Your task to perform on an android device: Search for usb-c to usb-b on bestbuy.com, select the first entry, and add it to the cart. Image 0: 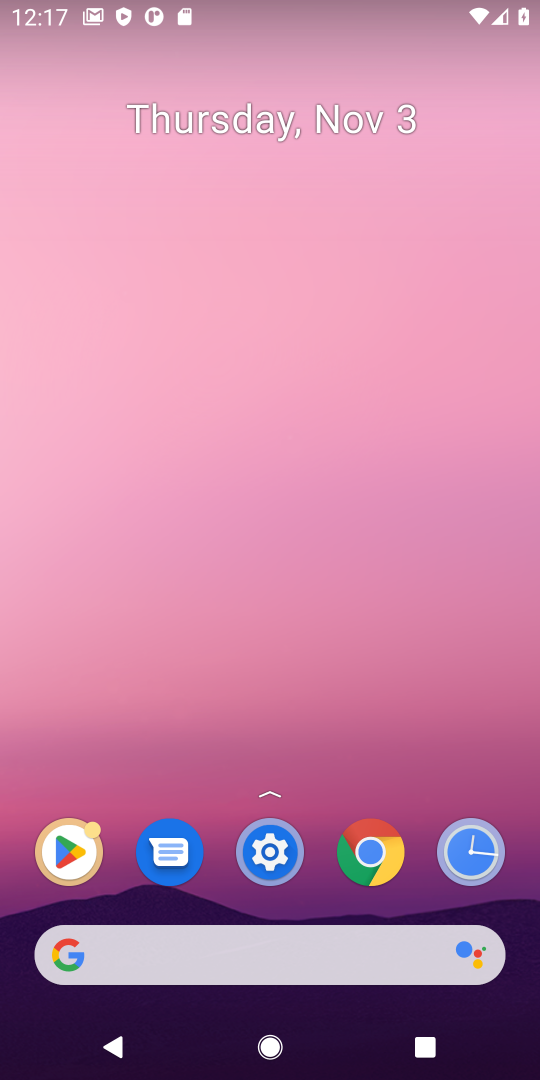
Step 0: click (373, 856)
Your task to perform on an android device: Search for usb-c to usb-b on bestbuy.com, select the first entry, and add it to the cart. Image 1: 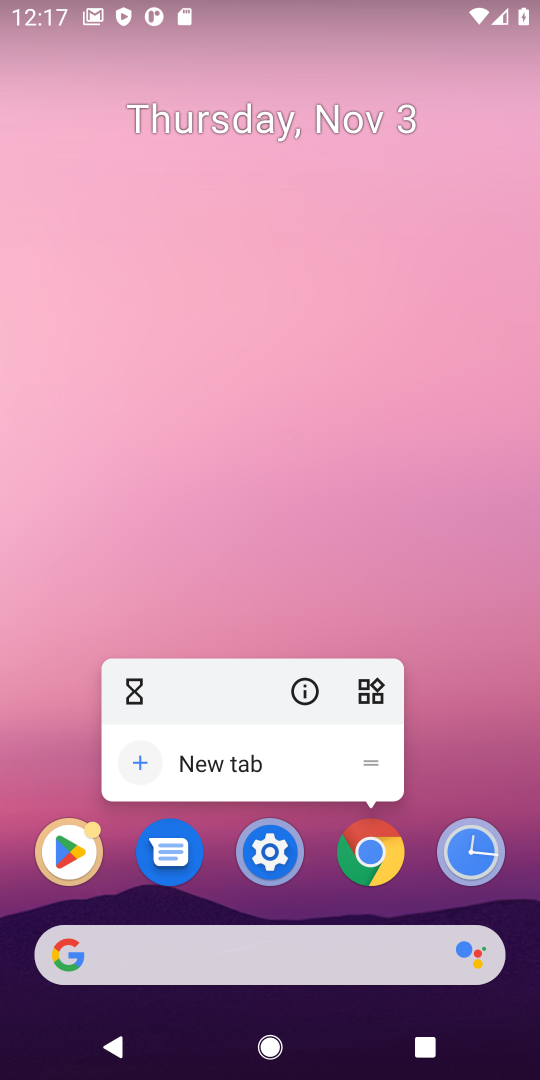
Step 1: click (381, 857)
Your task to perform on an android device: Search for usb-c to usb-b on bestbuy.com, select the first entry, and add it to the cart. Image 2: 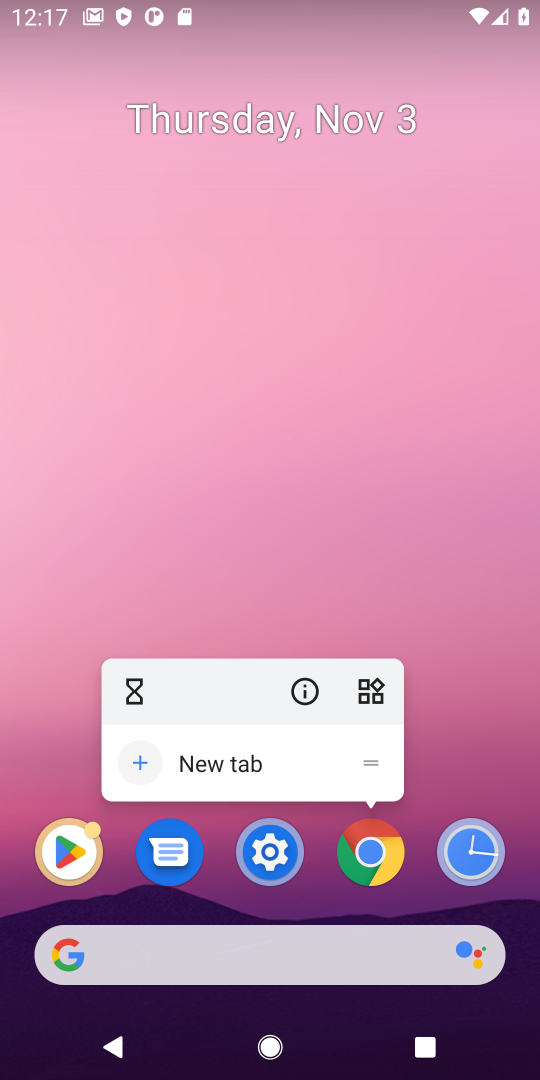
Step 2: click (373, 864)
Your task to perform on an android device: Search for usb-c to usb-b on bestbuy.com, select the first entry, and add it to the cart. Image 3: 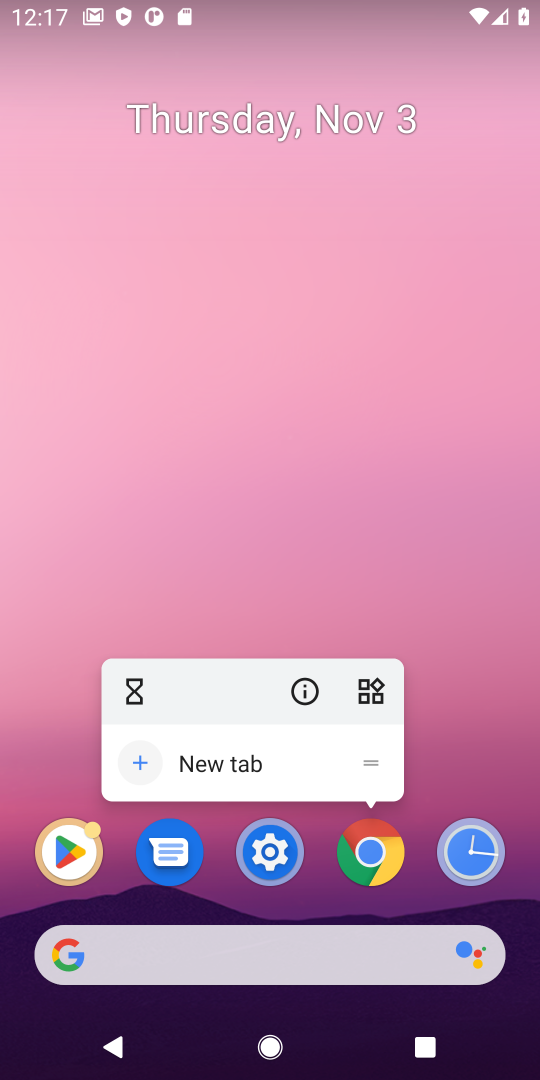
Step 3: click (373, 864)
Your task to perform on an android device: Search for usb-c to usb-b on bestbuy.com, select the first entry, and add it to the cart. Image 4: 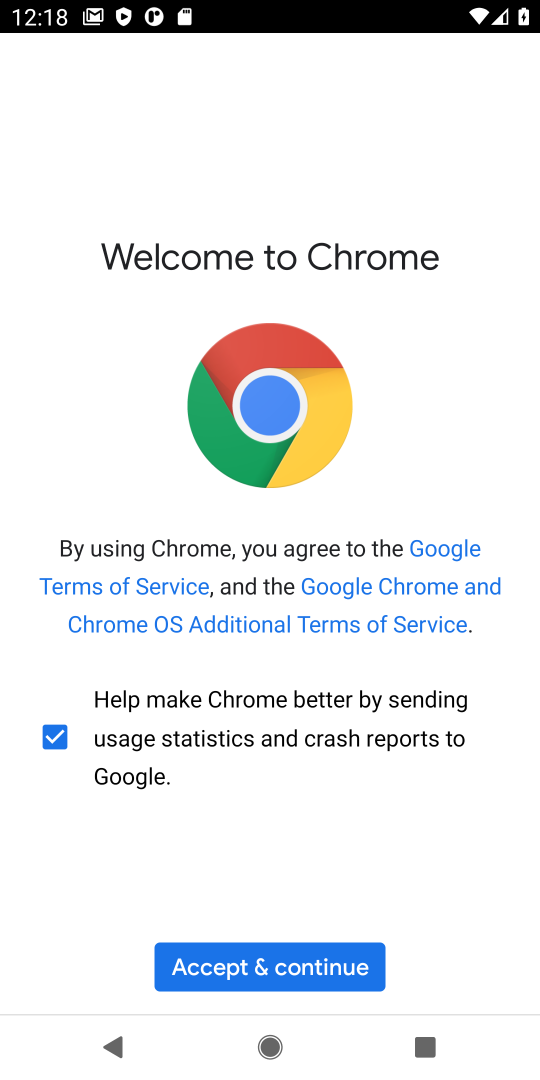
Step 4: click (317, 970)
Your task to perform on an android device: Search for usb-c to usb-b on bestbuy.com, select the first entry, and add it to the cart. Image 5: 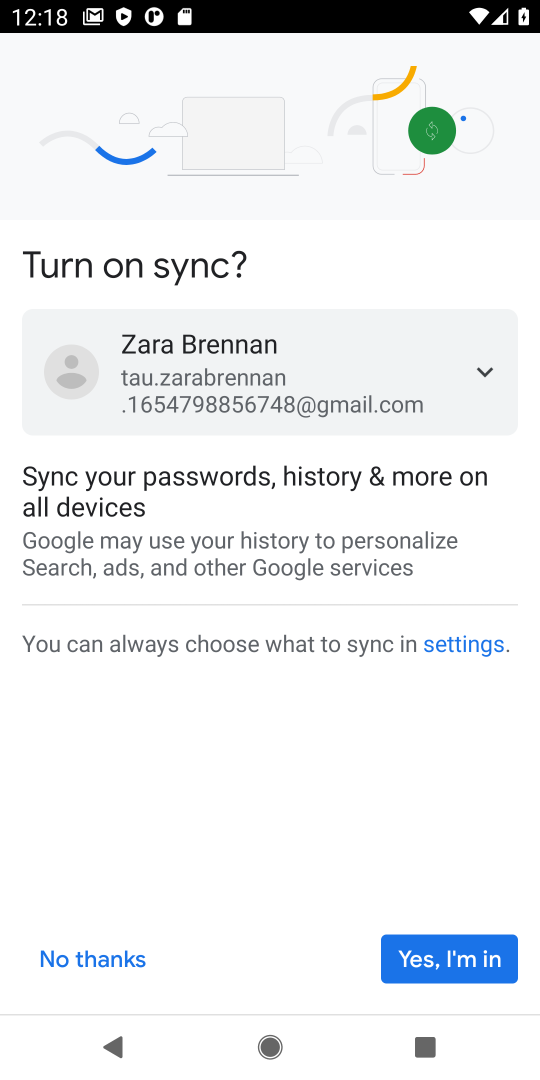
Step 5: click (412, 968)
Your task to perform on an android device: Search for usb-c to usb-b on bestbuy.com, select the first entry, and add it to the cart. Image 6: 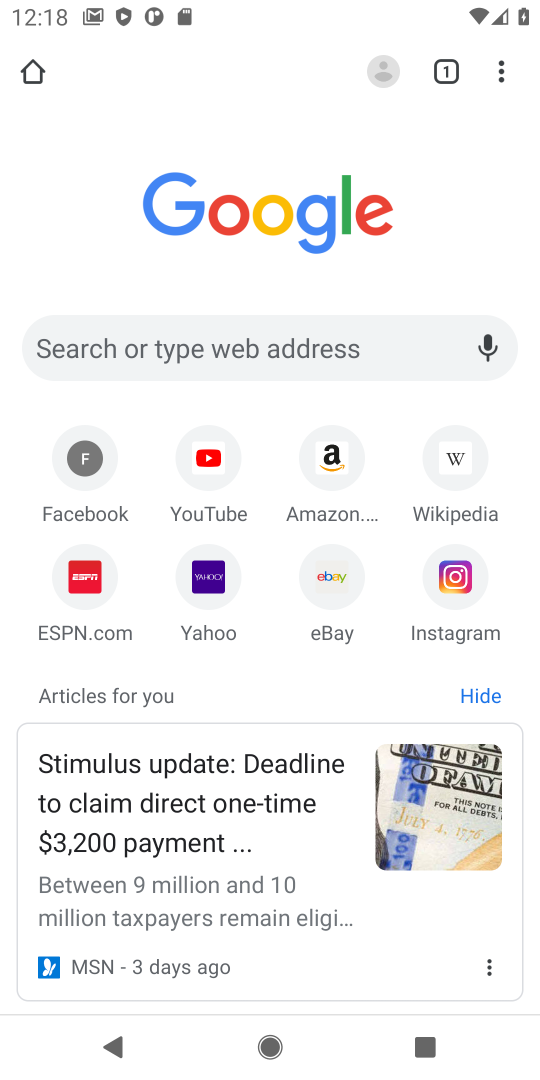
Step 6: click (185, 357)
Your task to perform on an android device: Search for usb-c to usb-b on bestbuy.com, select the first entry, and add it to the cart. Image 7: 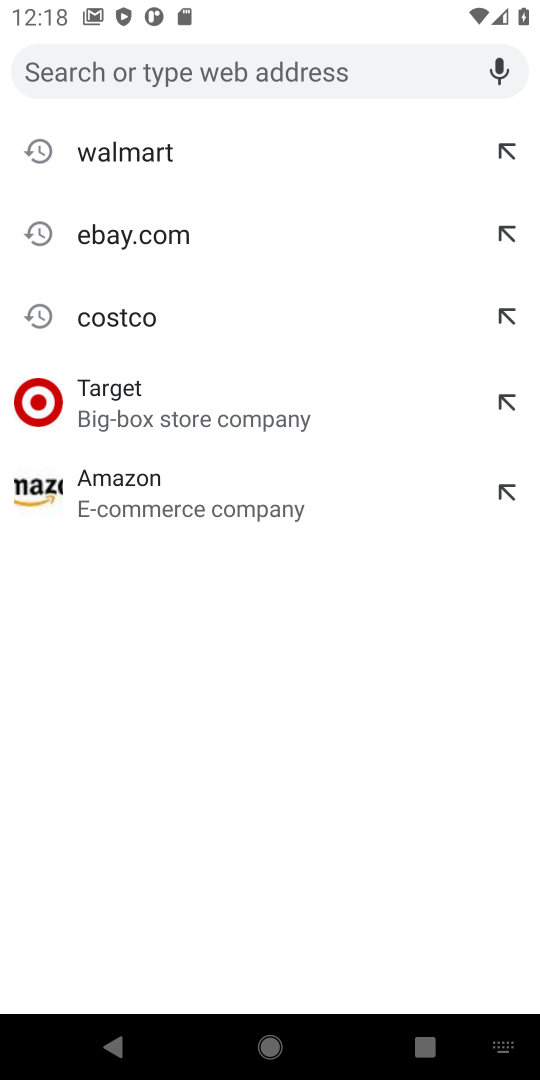
Step 7: type "bestbuy.com"
Your task to perform on an android device: Search for usb-c to usb-b on bestbuy.com, select the first entry, and add it to the cart. Image 8: 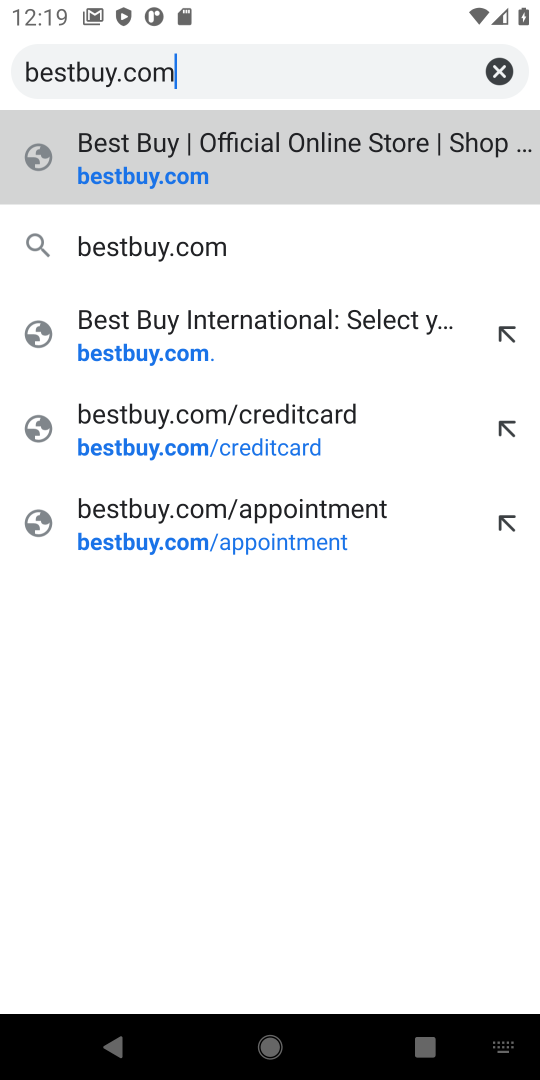
Step 8: click (148, 184)
Your task to perform on an android device: Search for usb-c to usb-b on bestbuy.com, select the first entry, and add it to the cart. Image 9: 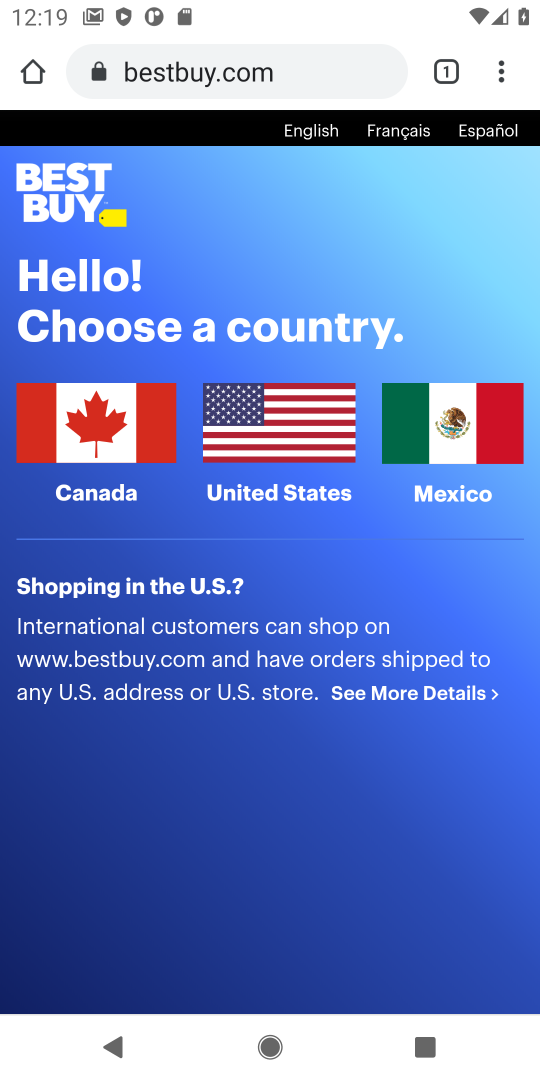
Step 9: click (275, 420)
Your task to perform on an android device: Search for usb-c to usb-b on bestbuy.com, select the first entry, and add it to the cart. Image 10: 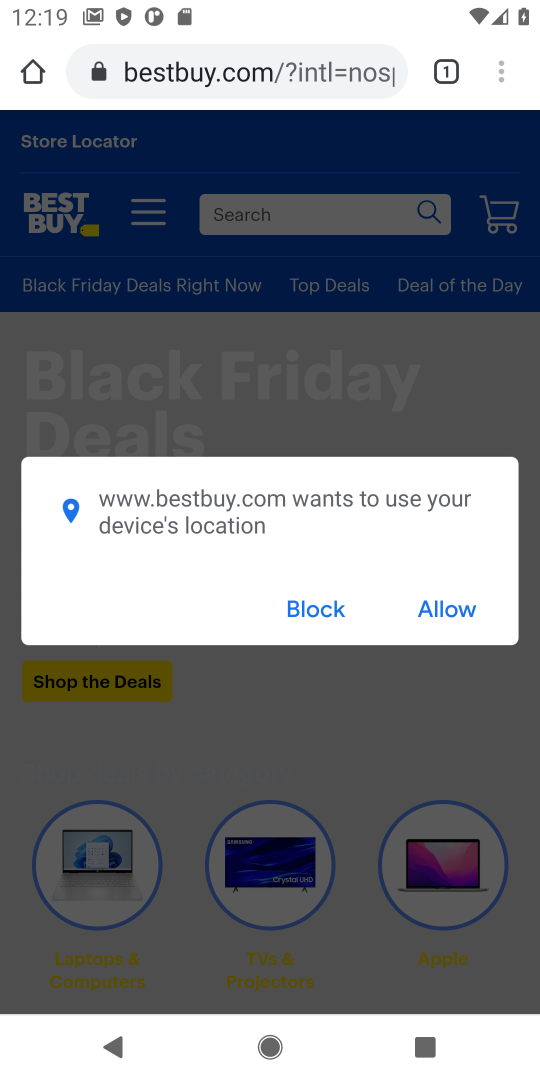
Step 10: click (300, 615)
Your task to perform on an android device: Search for usb-c to usb-b on bestbuy.com, select the first entry, and add it to the cart. Image 11: 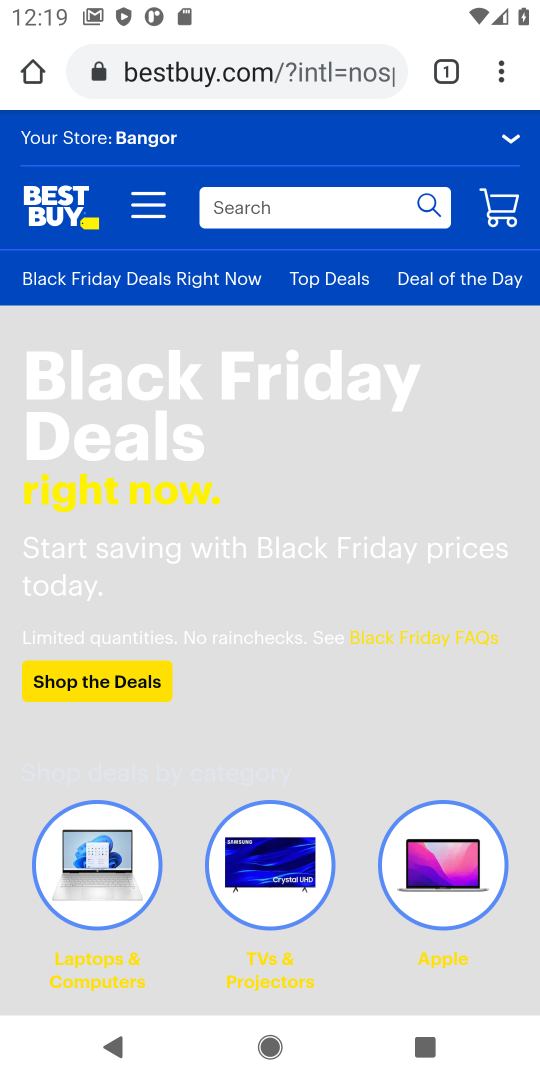
Step 11: click (250, 213)
Your task to perform on an android device: Search for usb-c to usb-b on bestbuy.com, select the first entry, and add it to the cart. Image 12: 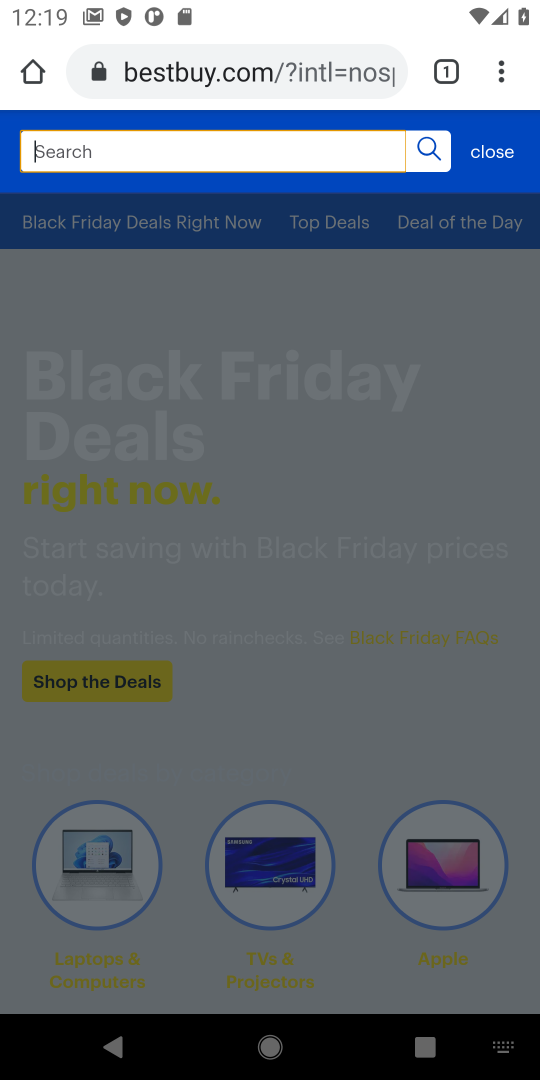
Step 12: type "usb-c to usb-b"
Your task to perform on an android device: Search for usb-c to usb-b on bestbuy.com, select the first entry, and add it to the cart. Image 13: 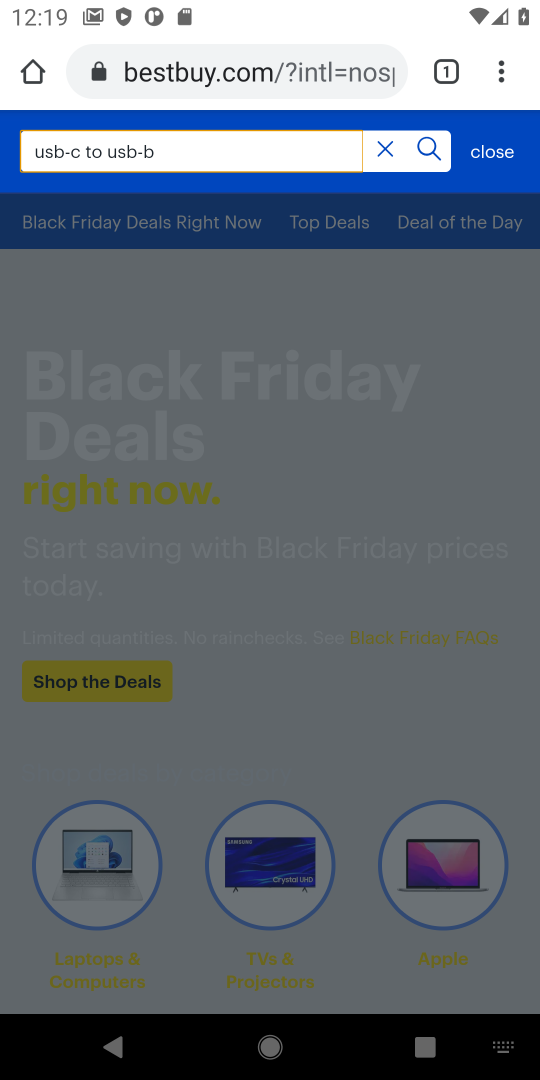
Step 13: click (425, 155)
Your task to perform on an android device: Search for usb-c to usb-b on bestbuy.com, select the first entry, and add it to the cart. Image 14: 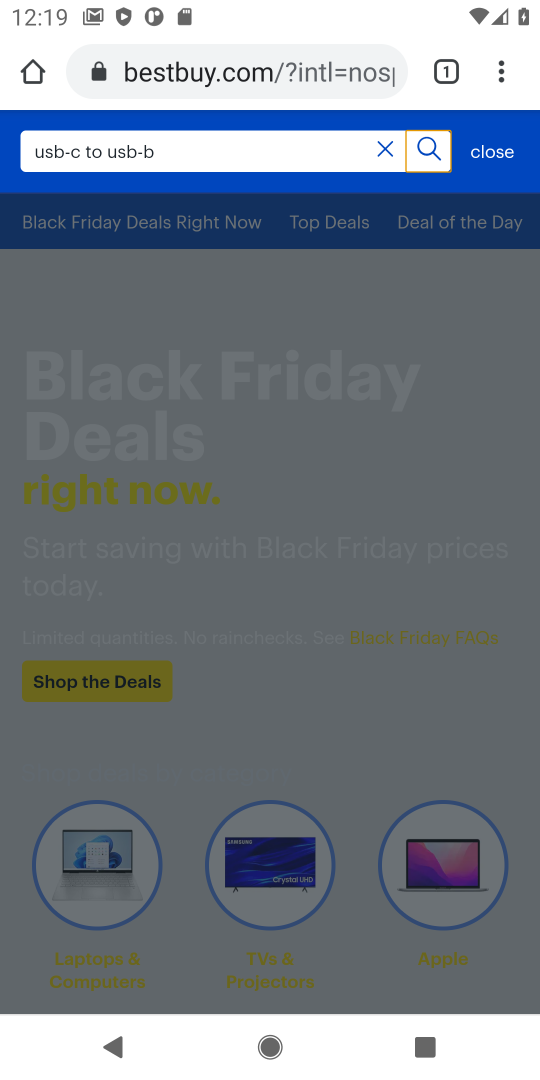
Step 14: click (429, 149)
Your task to perform on an android device: Search for usb-c to usb-b on bestbuy.com, select the first entry, and add it to the cart. Image 15: 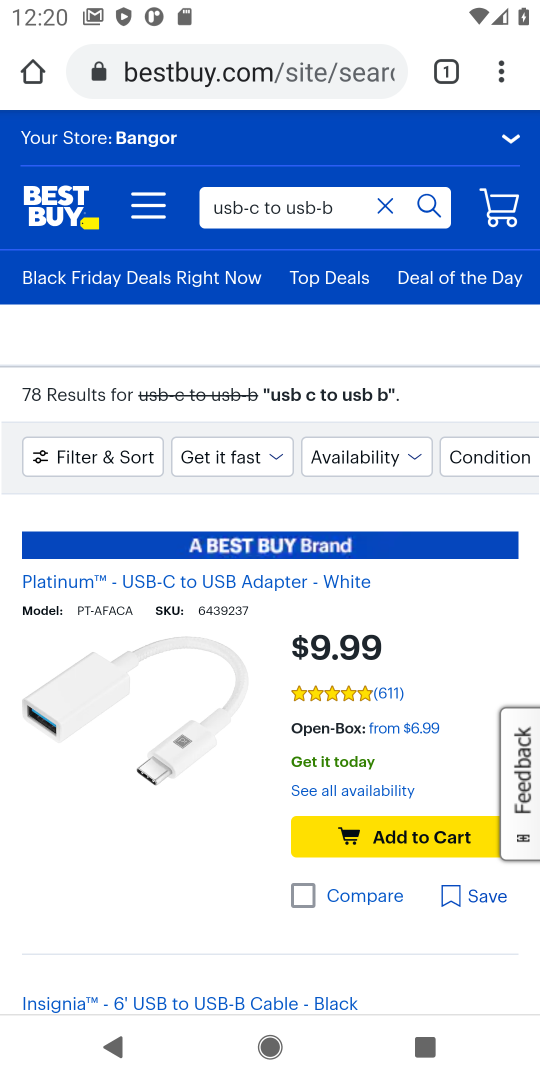
Step 15: drag from (172, 758) to (224, 561)
Your task to perform on an android device: Search for usb-c to usb-b on bestbuy.com, select the first entry, and add it to the cart. Image 16: 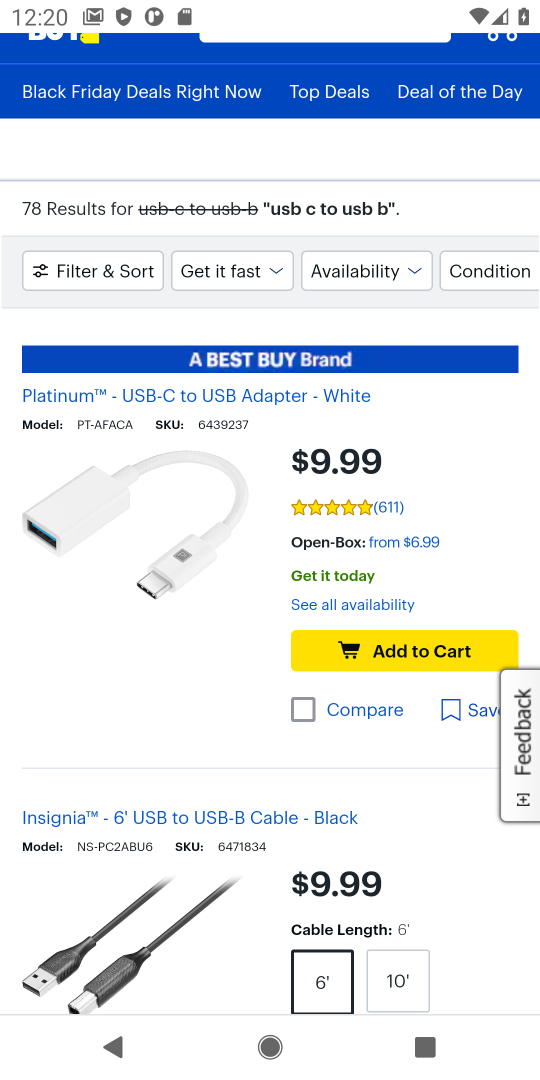
Step 16: click (179, 545)
Your task to perform on an android device: Search for usb-c to usb-b on bestbuy.com, select the first entry, and add it to the cart. Image 17: 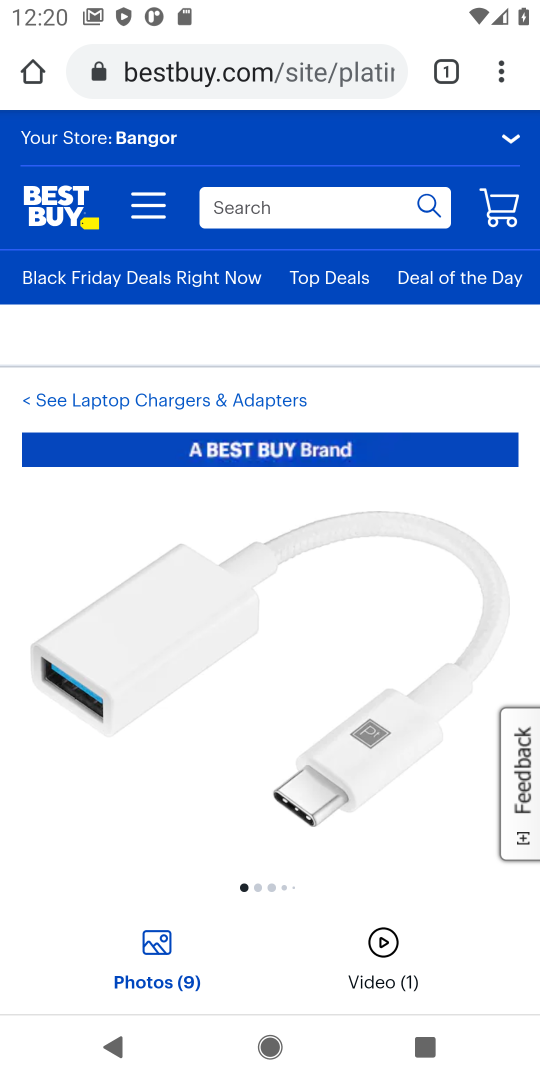
Step 17: task complete